Your task to perform on an android device: move an email to a new category in the gmail app Image 0: 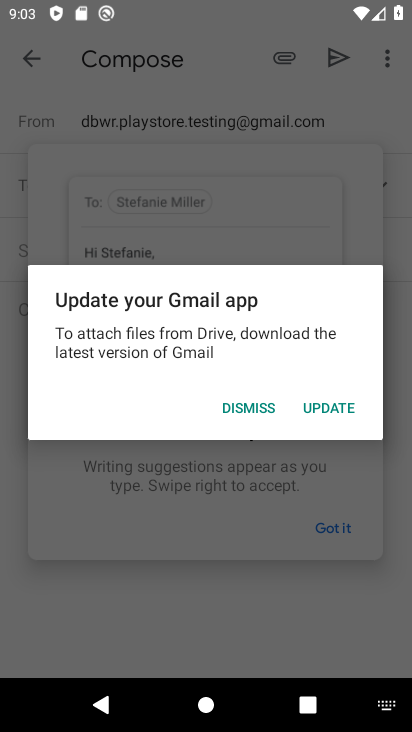
Step 0: press home button
Your task to perform on an android device: move an email to a new category in the gmail app Image 1: 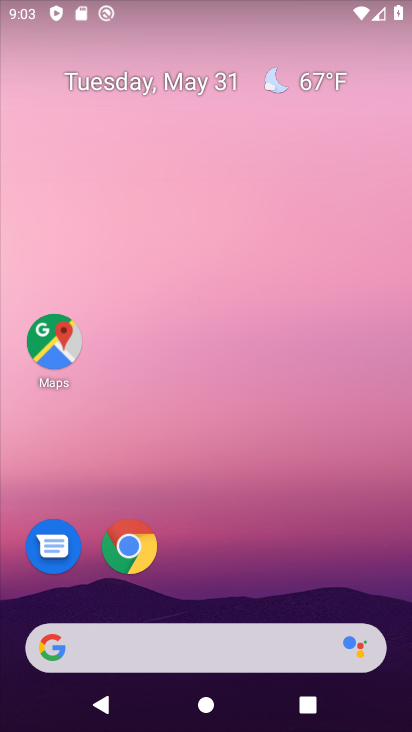
Step 1: drag from (199, 581) to (311, 10)
Your task to perform on an android device: move an email to a new category in the gmail app Image 2: 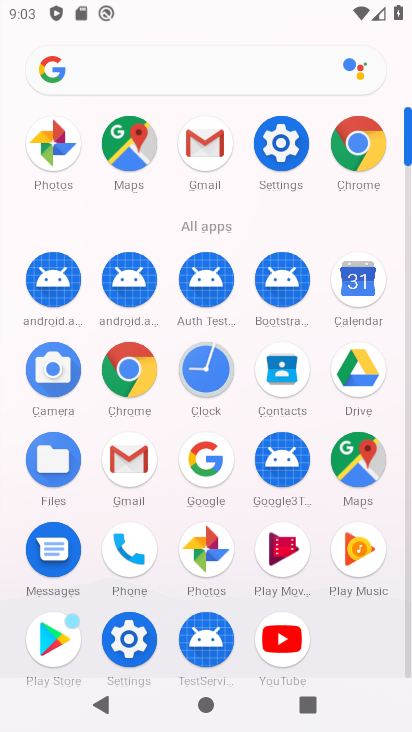
Step 2: click (128, 461)
Your task to perform on an android device: move an email to a new category in the gmail app Image 3: 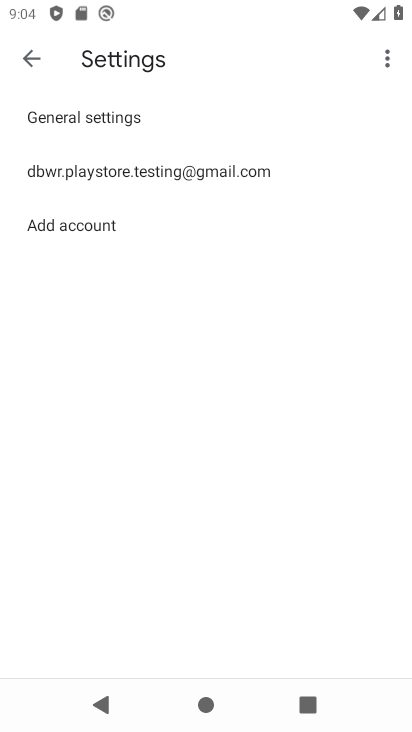
Step 3: click (36, 66)
Your task to perform on an android device: move an email to a new category in the gmail app Image 4: 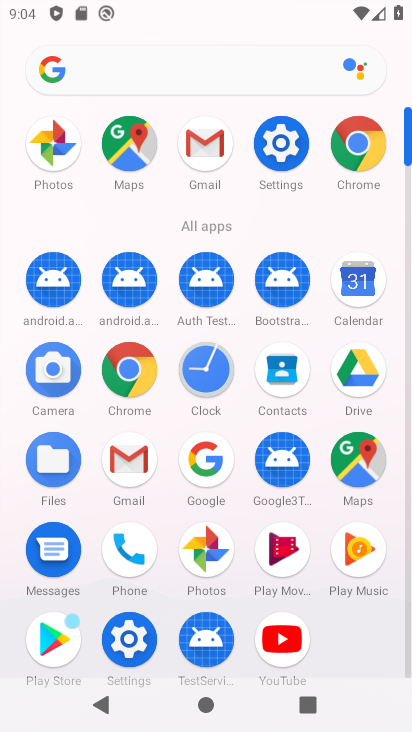
Step 4: click (125, 457)
Your task to perform on an android device: move an email to a new category in the gmail app Image 5: 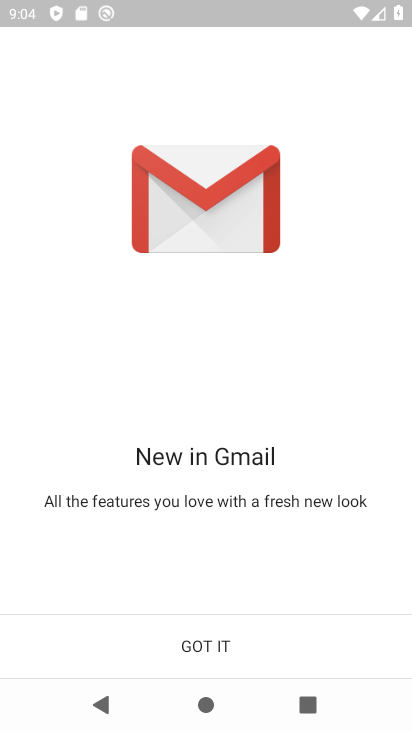
Step 5: click (226, 637)
Your task to perform on an android device: move an email to a new category in the gmail app Image 6: 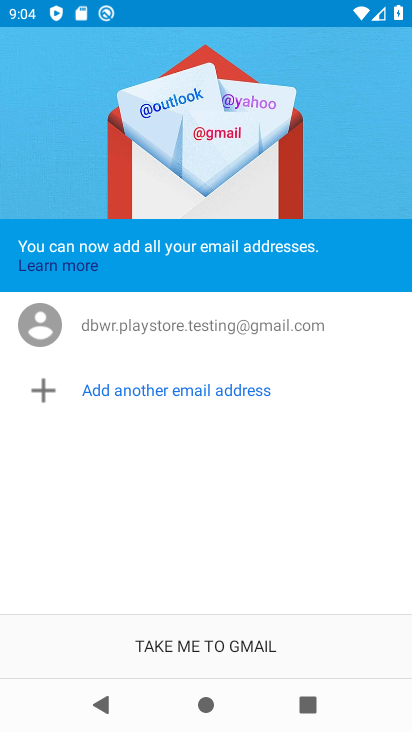
Step 6: click (225, 637)
Your task to perform on an android device: move an email to a new category in the gmail app Image 7: 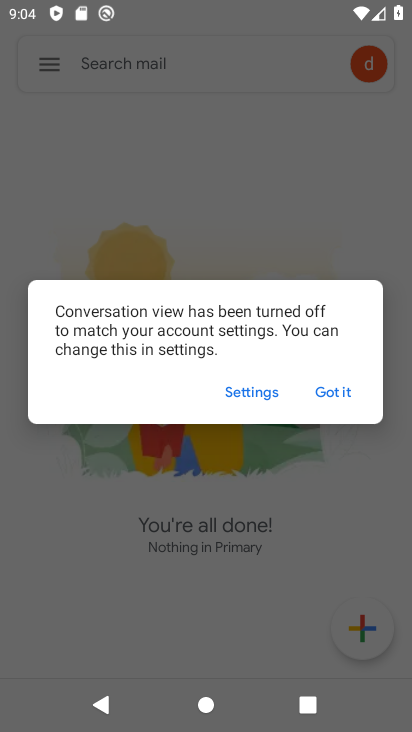
Step 7: click (332, 386)
Your task to perform on an android device: move an email to a new category in the gmail app Image 8: 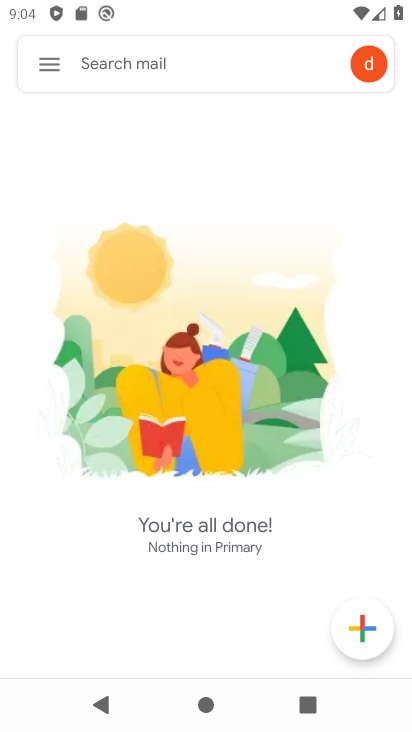
Step 8: click (55, 64)
Your task to perform on an android device: move an email to a new category in the gmail app Image 9: 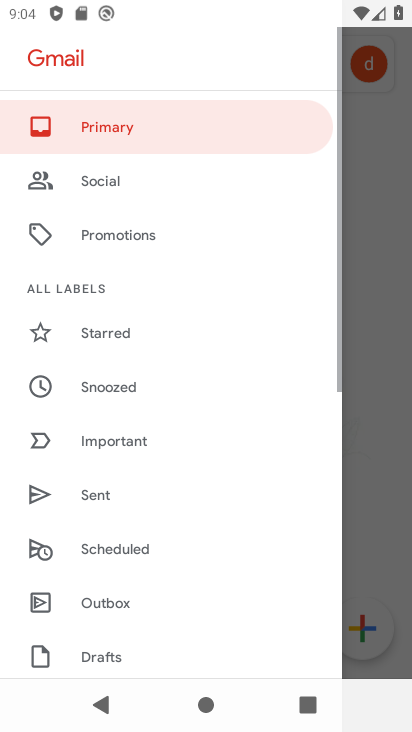
Step 9: drag from (139, 617) to (212, 12)
Your task to perform on an android device: move an email to a new category in the gmail app Image 10: 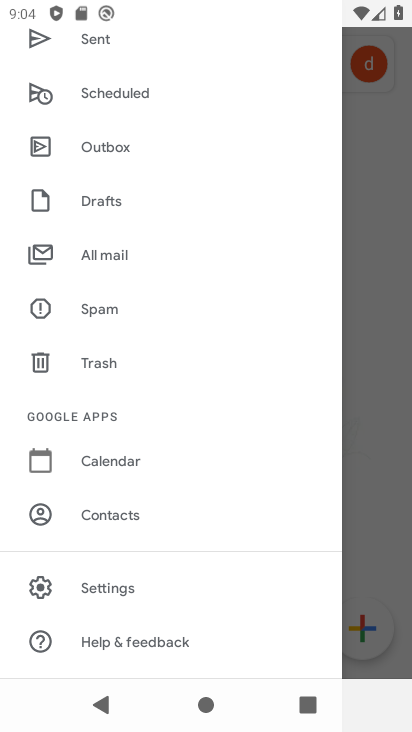
Step 10: click (102, 269)
Your task to perform on an android device: move an email to a new category in the gmail app Image 11: 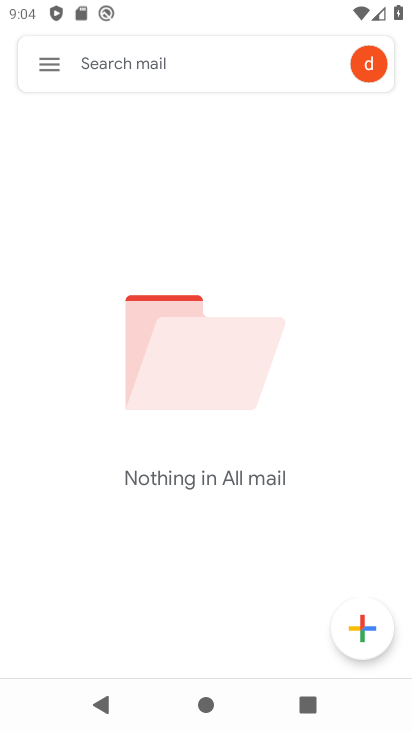
Step 11: task complete